Your task to perform on an android device: turn off sleep mode Image 0: 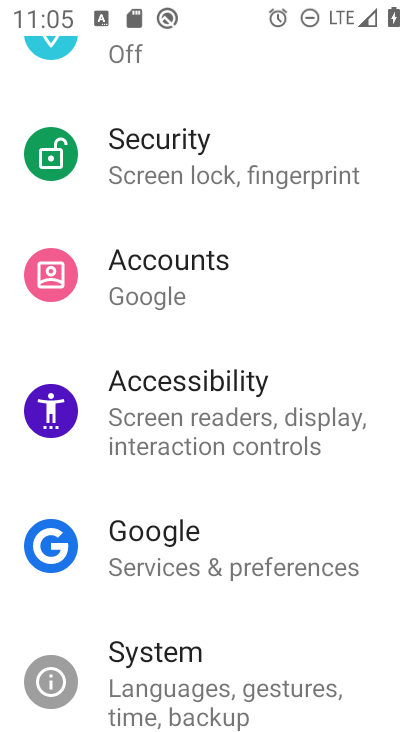
Step 0: drag from (282, 287) to (264, 624)
Your task to perform on an android device: turn off sleep mode Image 1: 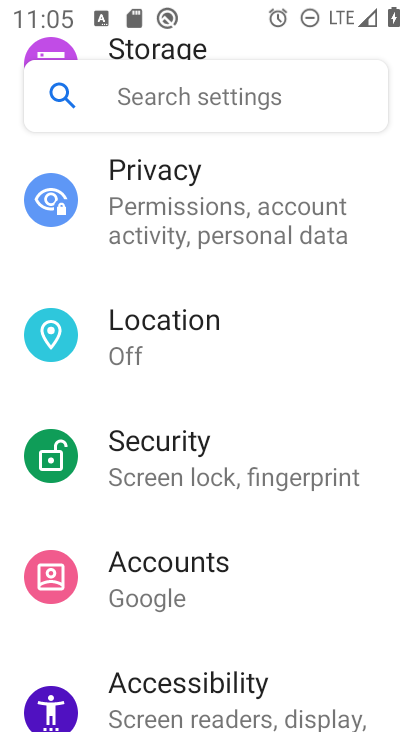
Step 1: drag from (349, 207) to (312, 610)
Your task to perform on an android device: turn off sleep mode Image 2: 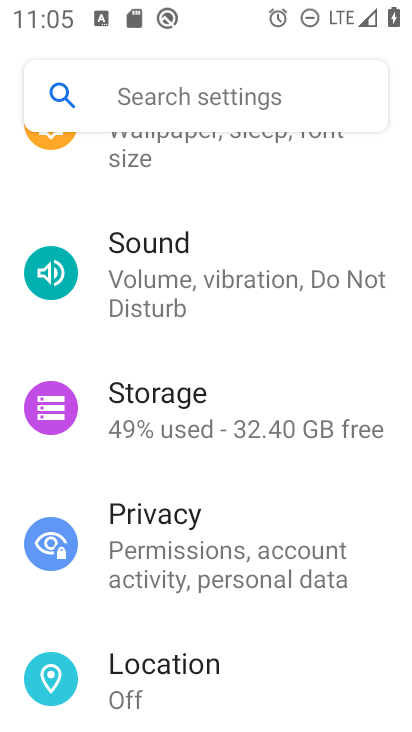
Step 2: drag from (342, 216) to (357, 573)
Your task to perform on an android device: turn off sleep mode Image 3: 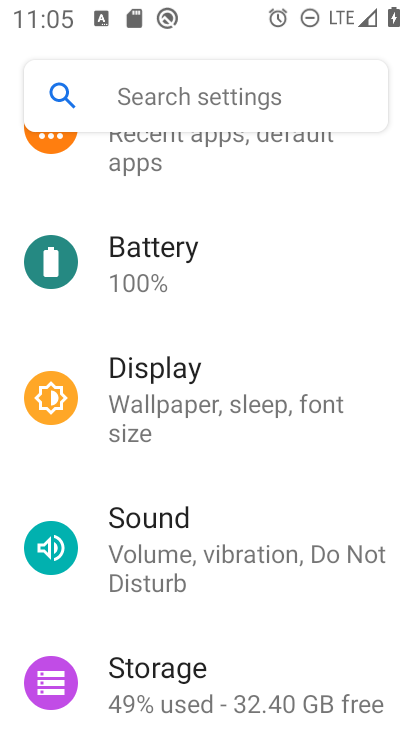
Step 3: click (159, 388)
Your task to perform on an android device: turn off sleep mode Image 4: 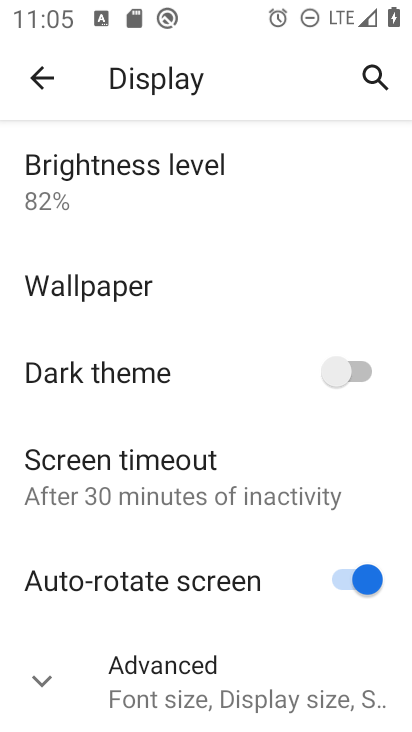
Step 4: click (46, 681)
Your task to perform on an android device: turn off sleep mode Image 5: 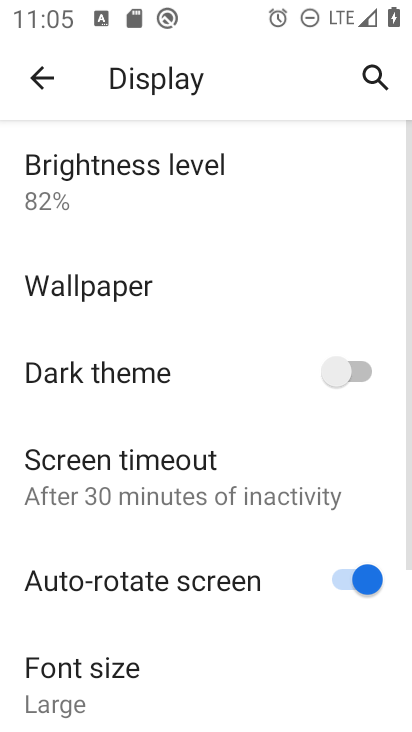
Step 5: task complete